Your task to perform on an android device: Open notification settings Image 0: 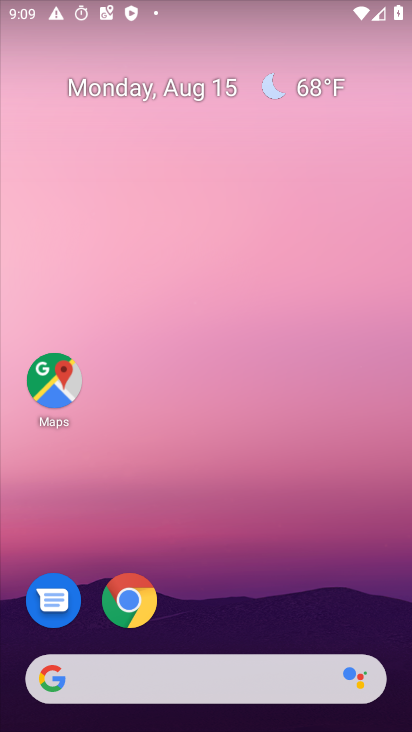
Step 0: drag from (245, 648) to (232, 103)
Your task to perform on an android device: Open notification settings Image 1: 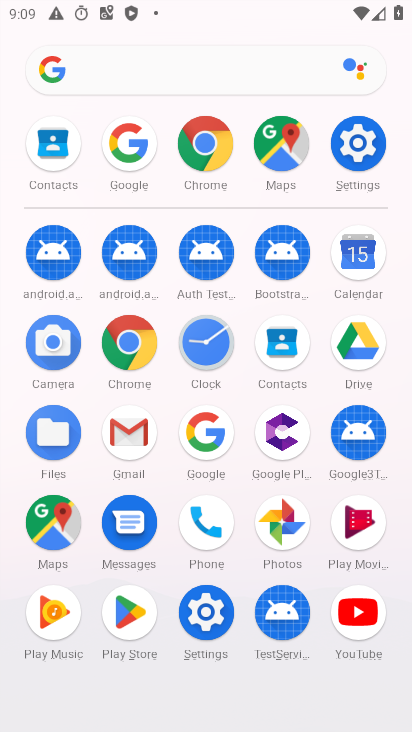
Step 1: click (360, 141)
Your task to perform on an android device: Open notification settings Image 2: 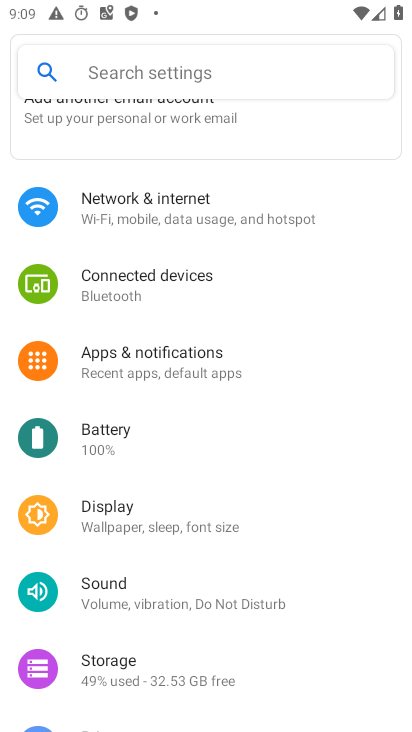
Step 2: click (139, 373)
Your task to perform on an android device: Open notification settings Image 3: 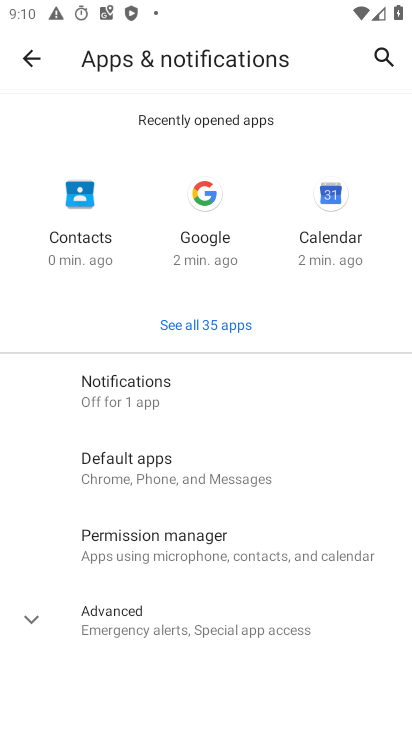
Step 3: click (112, 390)
Your task to perform on an android device: Open notification settings Image 4: 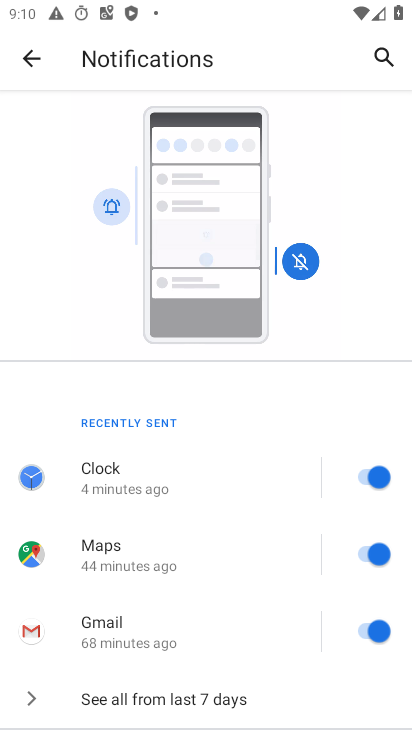
Step 4: task complete